Your task to perform on an android device: Open Wikipedia Image 0: 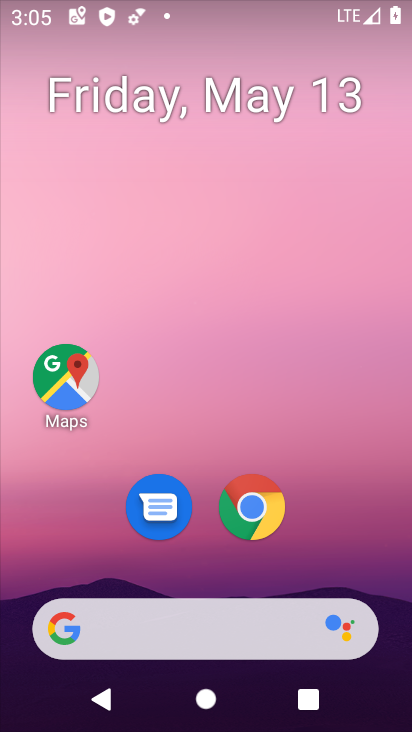
Step 0: click (187, 613)
Your task to perform on an android device: Open Wikipedia Image 1: 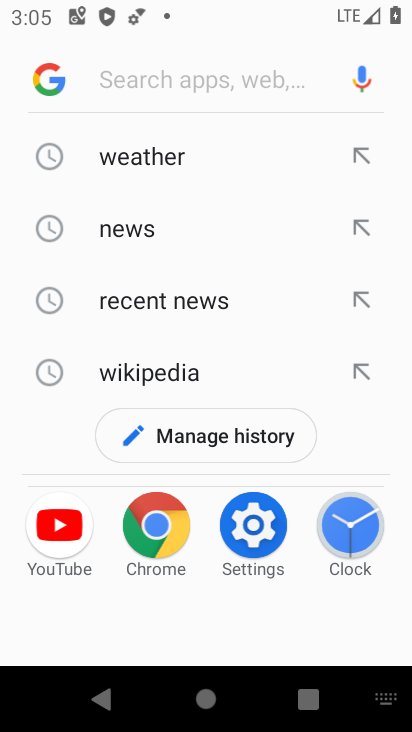
Step 1: click (114, 373)
Your task to perform on an android device: Open Wikipedia Image 2: 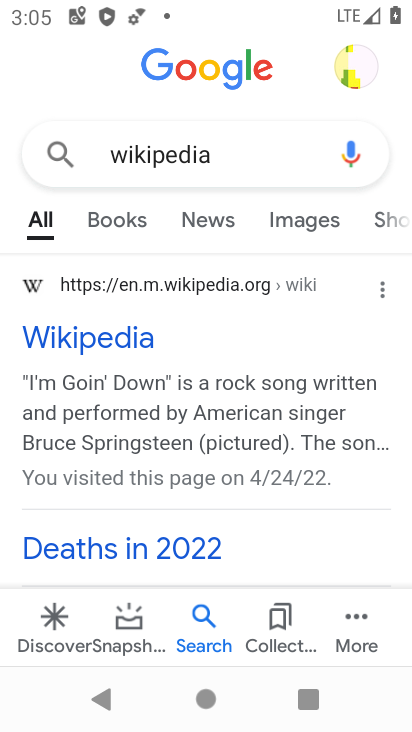
Step 2: task complete